Your task to perform on an android device: Open Google Maps and go to "Timeline" Image 0: 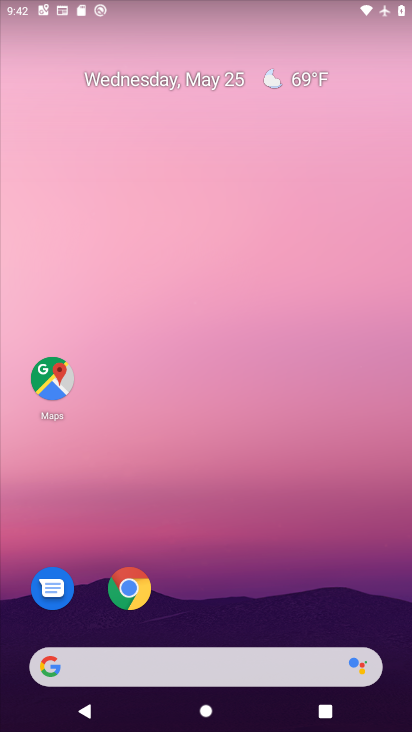
Step 0: drag from (384, 605) to (384, 87)
Your task to perform on an android device: Open Google Maps and go to "Timeline" Image 1: 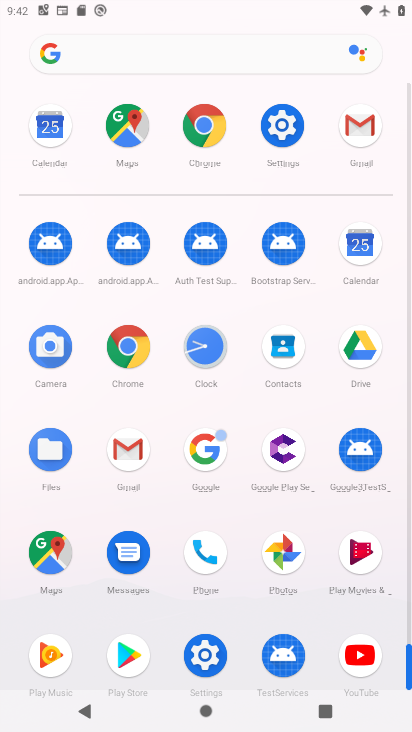
Step 1: click (57, 555)
Your task to perform on an android device: Open Google Maps and go to "Timeline" Image 2: 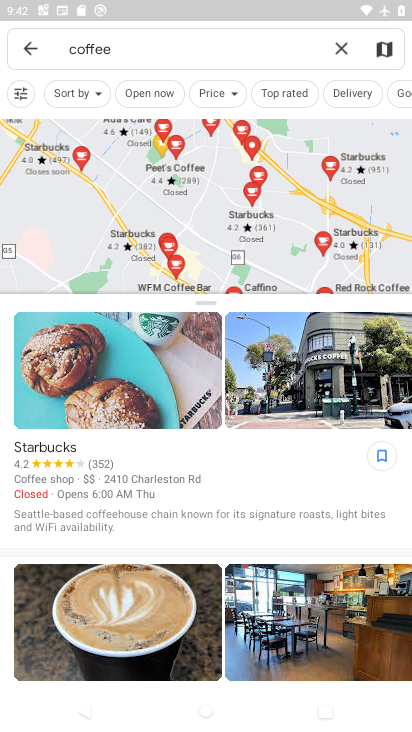
Step 2: press back button
Your task to perform on an android device: Open Google Maps and go to "Timeline" Image 3: 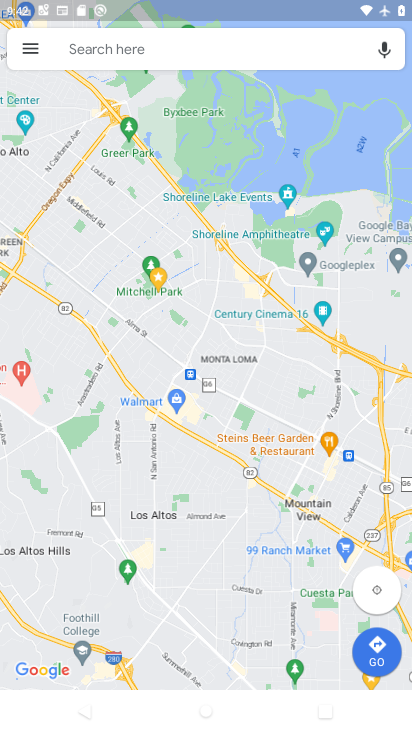
Step 3: click (28, 45)
Your task to perform on an android device: Open Google Maps and go to "Timeline" Image 4: 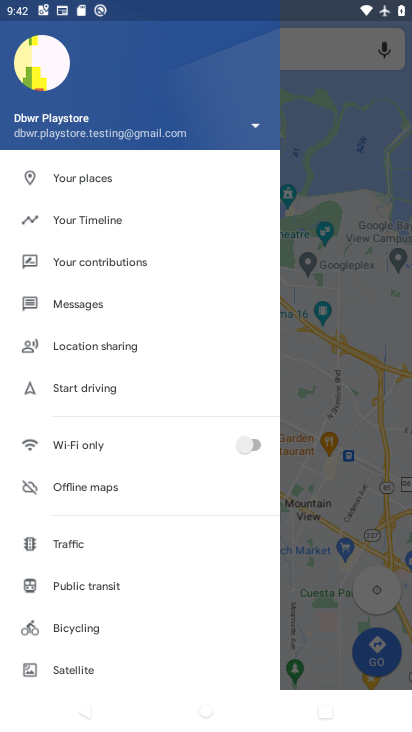
Step 4: click (112, 219)
Your task to perform on an android device: Open Google Maps and go to "Timeline" Image 5: 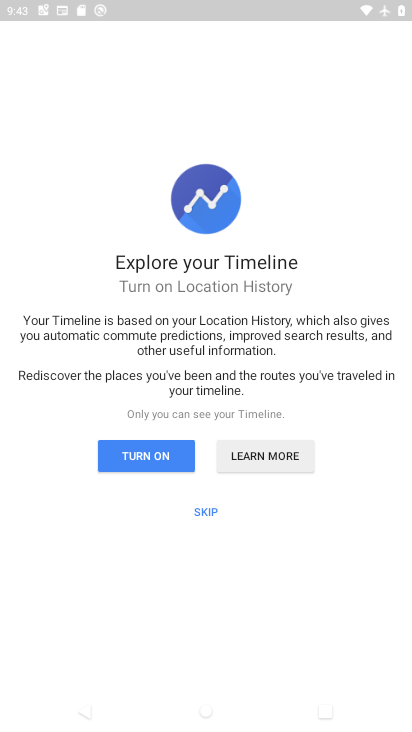
Step 5: task complete